Your task to perform on an android device: turn on notifications settings in the gmail app Image 0: 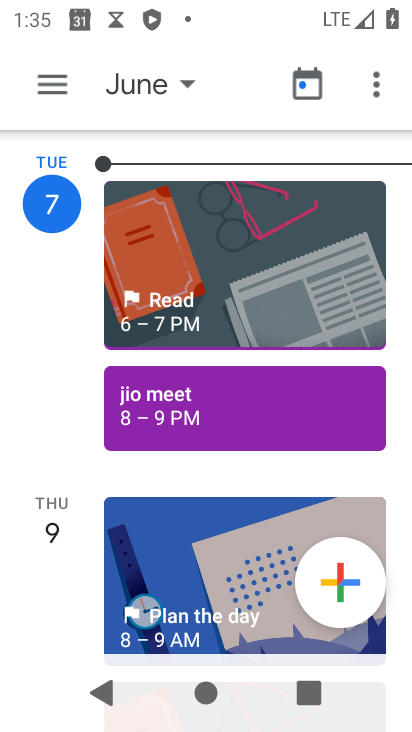
Step 0: press back button
Your task to perform on an android device: turn on notifications settings in the gmail app Image 1: 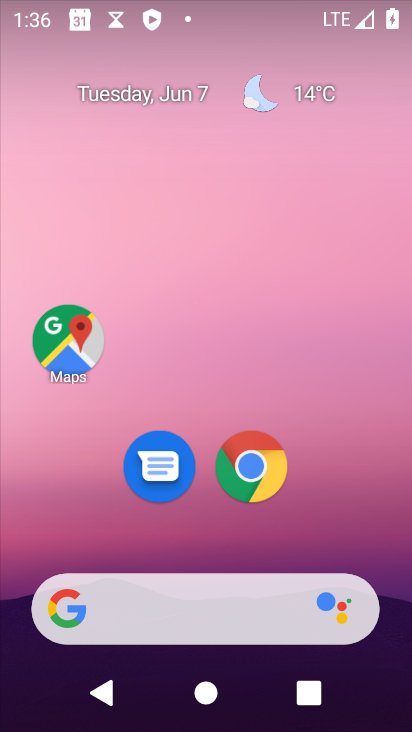
Step 1: drag from (144, 517) to (176, 143)
Your task to perform on an android device: turn on notifications settings in the gmail app Image 2: 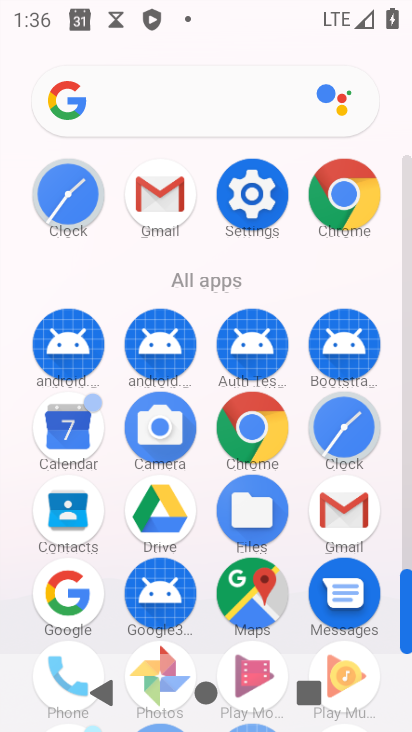
Step 2: click (158, 200)
Your task to perform on an android device: turn on notifications settings in the gmail app Image 3: 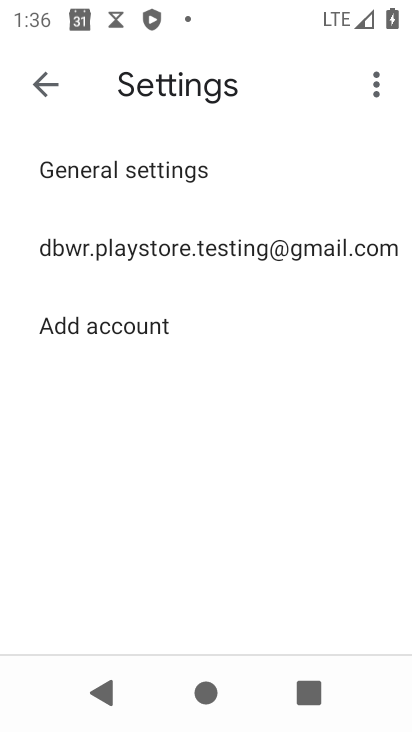
Step 3: click (137, 236)
Your task to perform on an android device: turn on notifications settings in the gmail app Image 4: 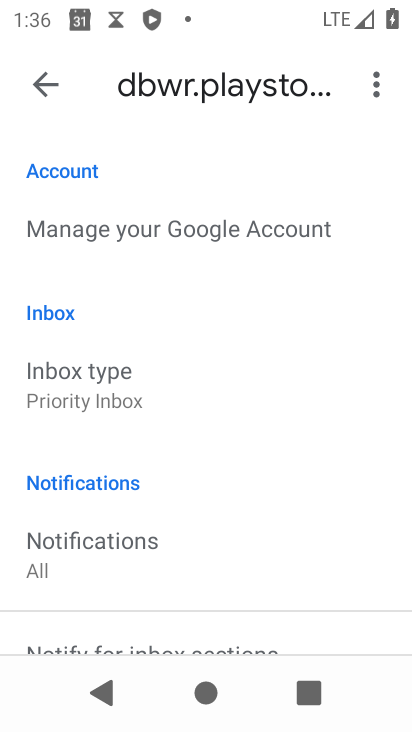
Step 4: drag from (147, 582) to (185, 210)
Your task to perform on an android device: turn on notifications settings in the gmail app Image 5: 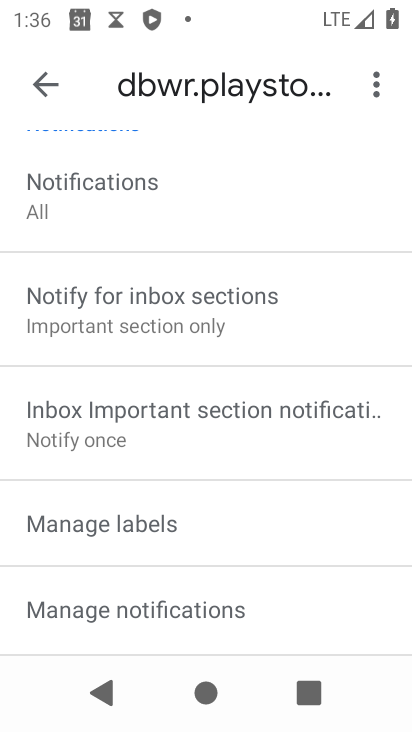
Step 5: drag from (211, 590) to (260, 279)
Your task to perform on an android device: turn on notifications settings in the gmail app Image 6: 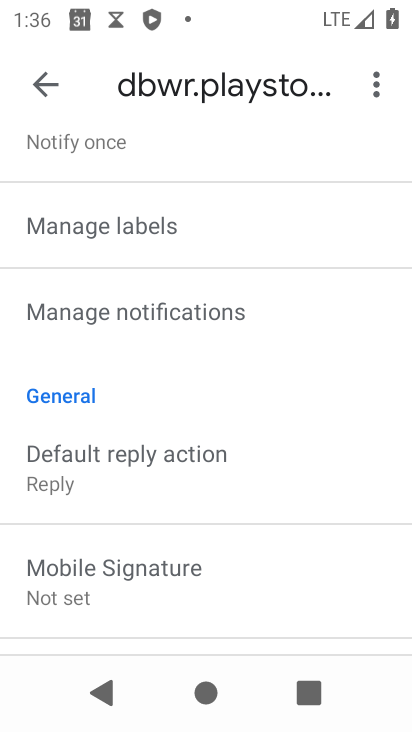
Step 6: drag from (142, 594) to (193, 667)
Your task to perform on an android device: turn on notifications settings in the gmail app Image 7: 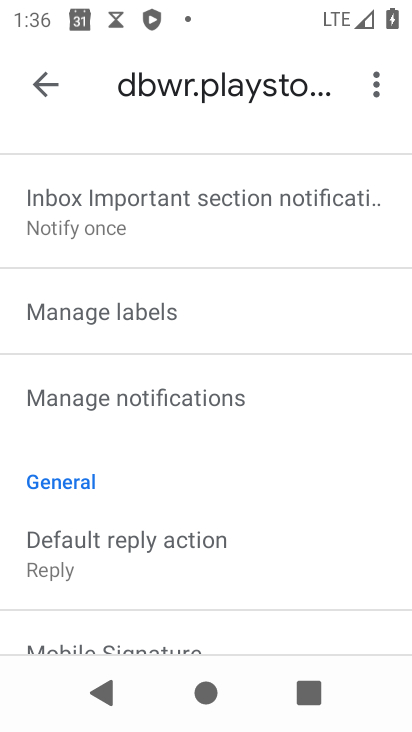
Step 7: click (124, 398)
Your task to perform on an android device: turn on notifications settings in the gmail app Image 8: 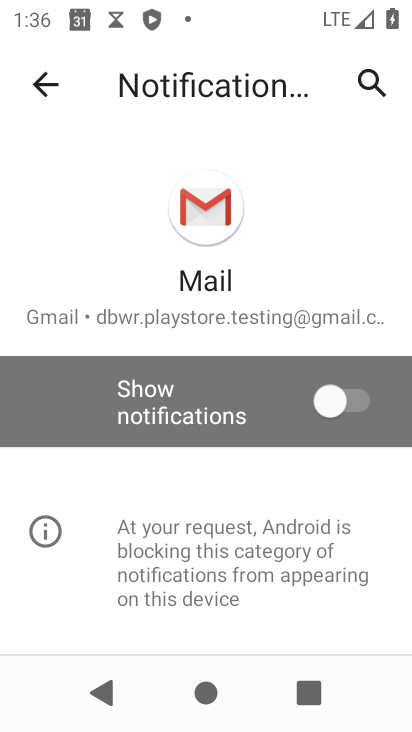
Step 8: click (358, 394)
Your task to perform on an android device: turn on notifications settings in the gmail app Image 9: 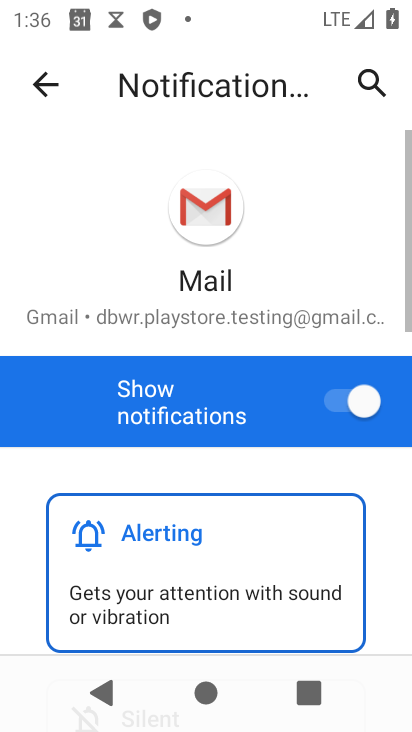
Step 9: task complete